Your task to perform on an android device: Open Maps and search for coffee Image 0: 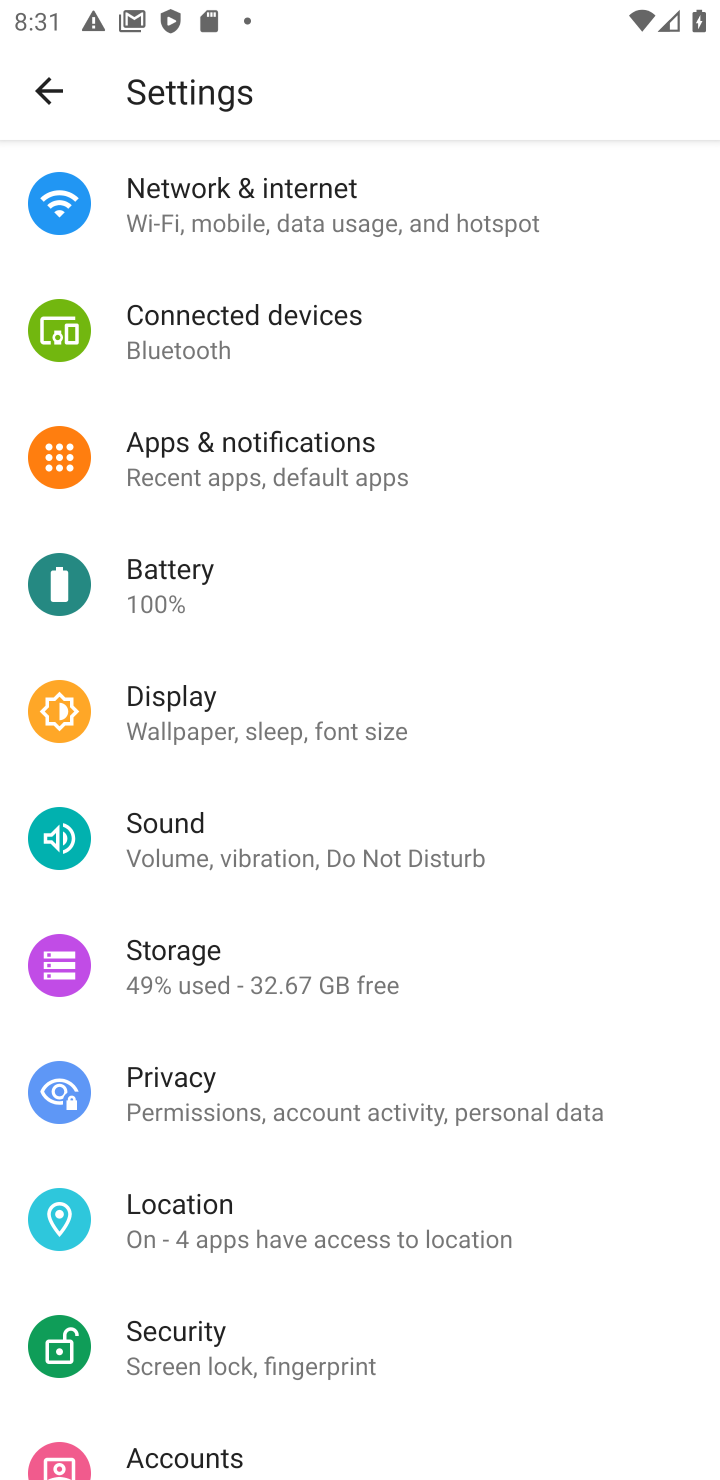
Step 0: press home button
Your task to perform on an android device: Open Maps and search for coffee Image 1: 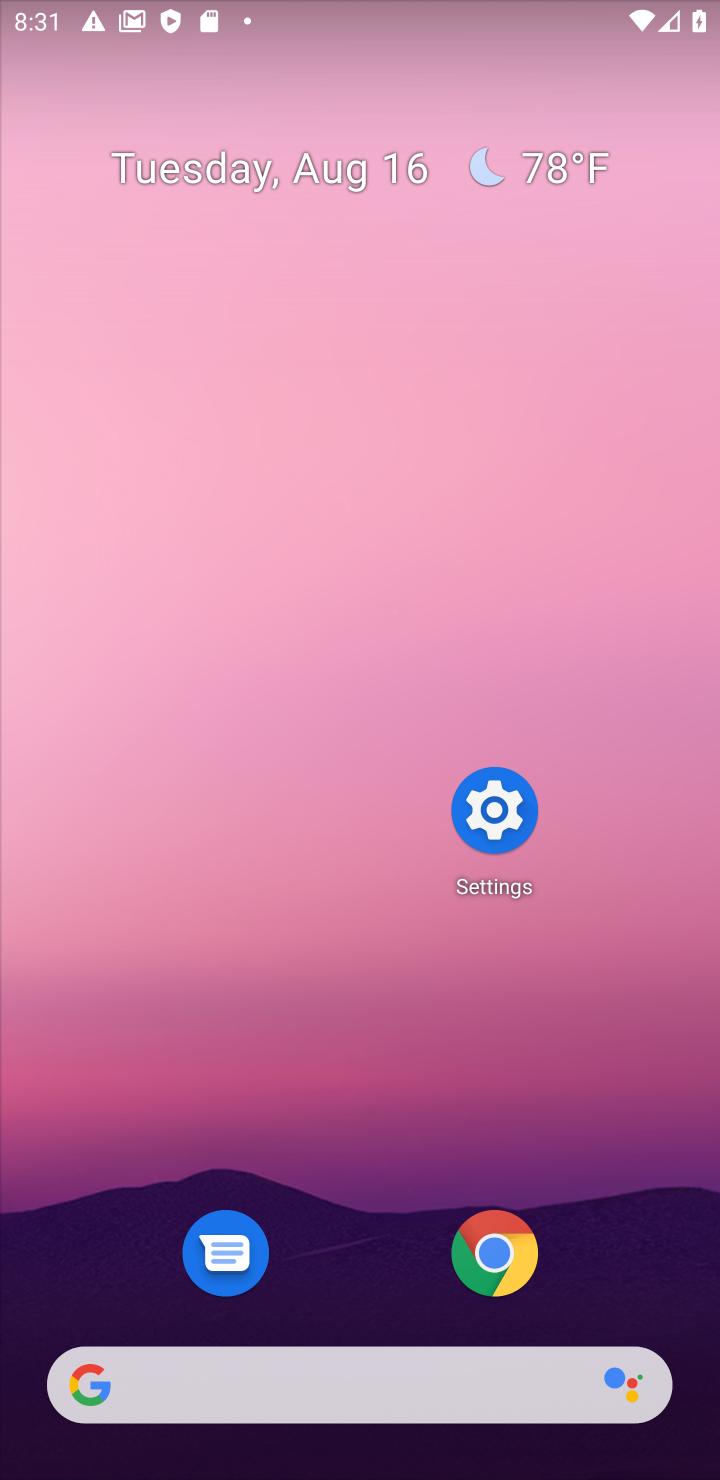
Step 1: drag from (334, 1368) to (473, 141)
Your task to perform on an android device: Open Maps and search for coffee Image 2: 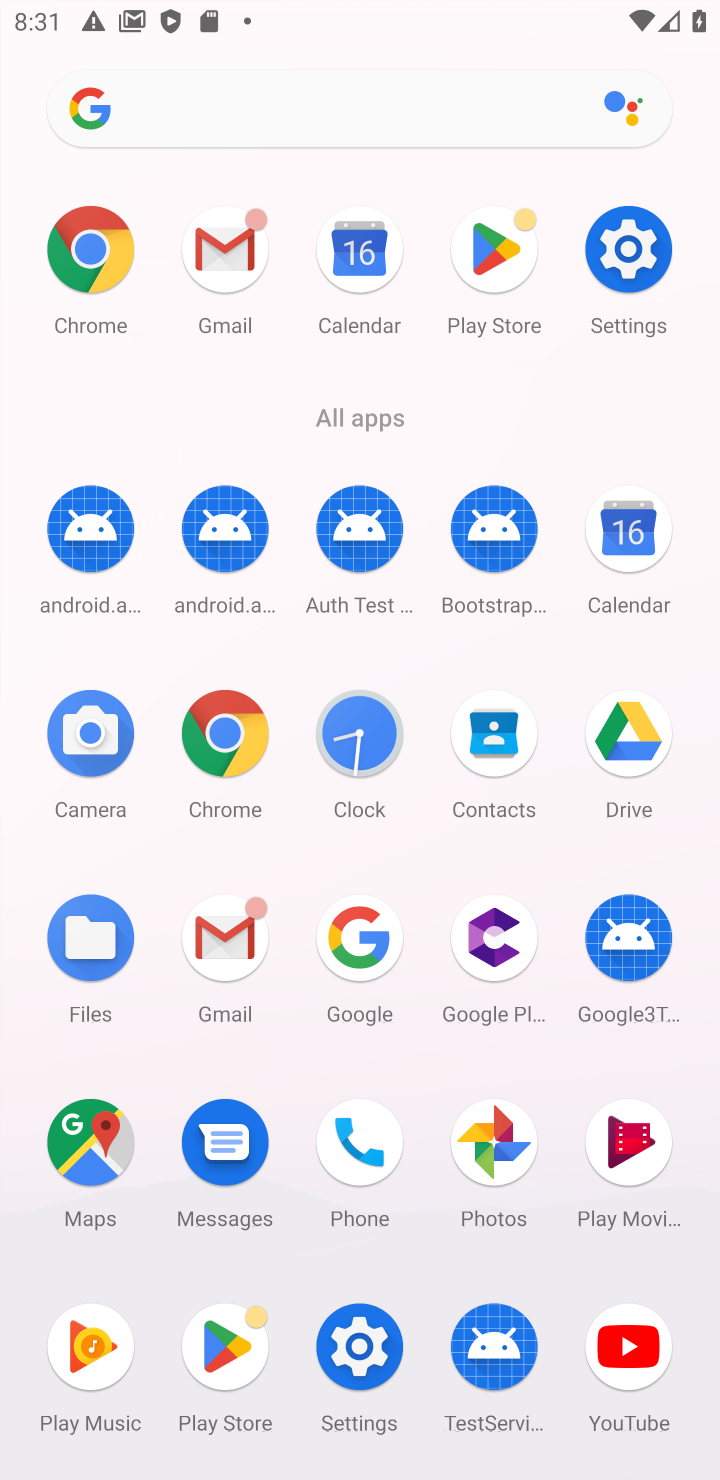
Step 2: drag from (86, 1152) to (259, 841)
Your task to perform on an android device: Open Maps and search for coffee Image 3: 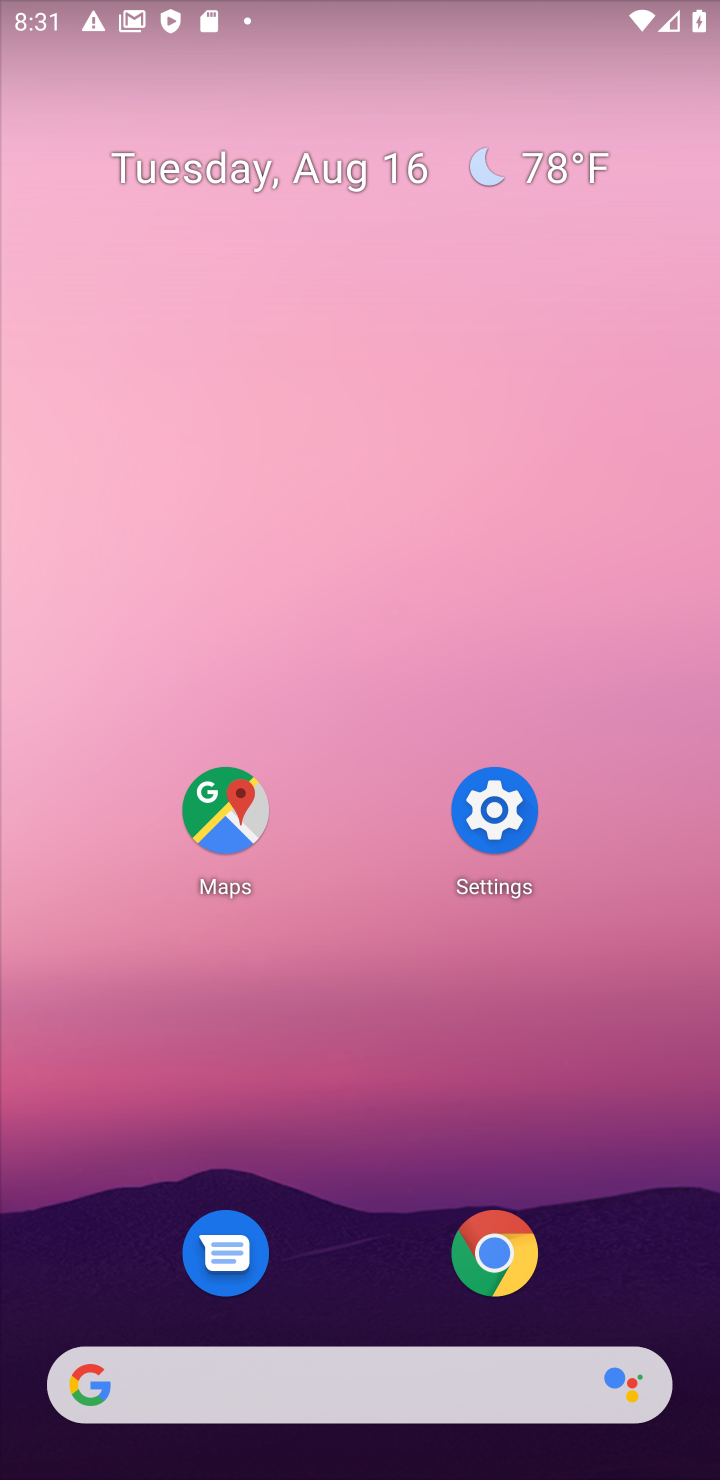
Step 3: click (229, 828)
Your task to perform on an android device: Open Maps and search for coffee Image 4: 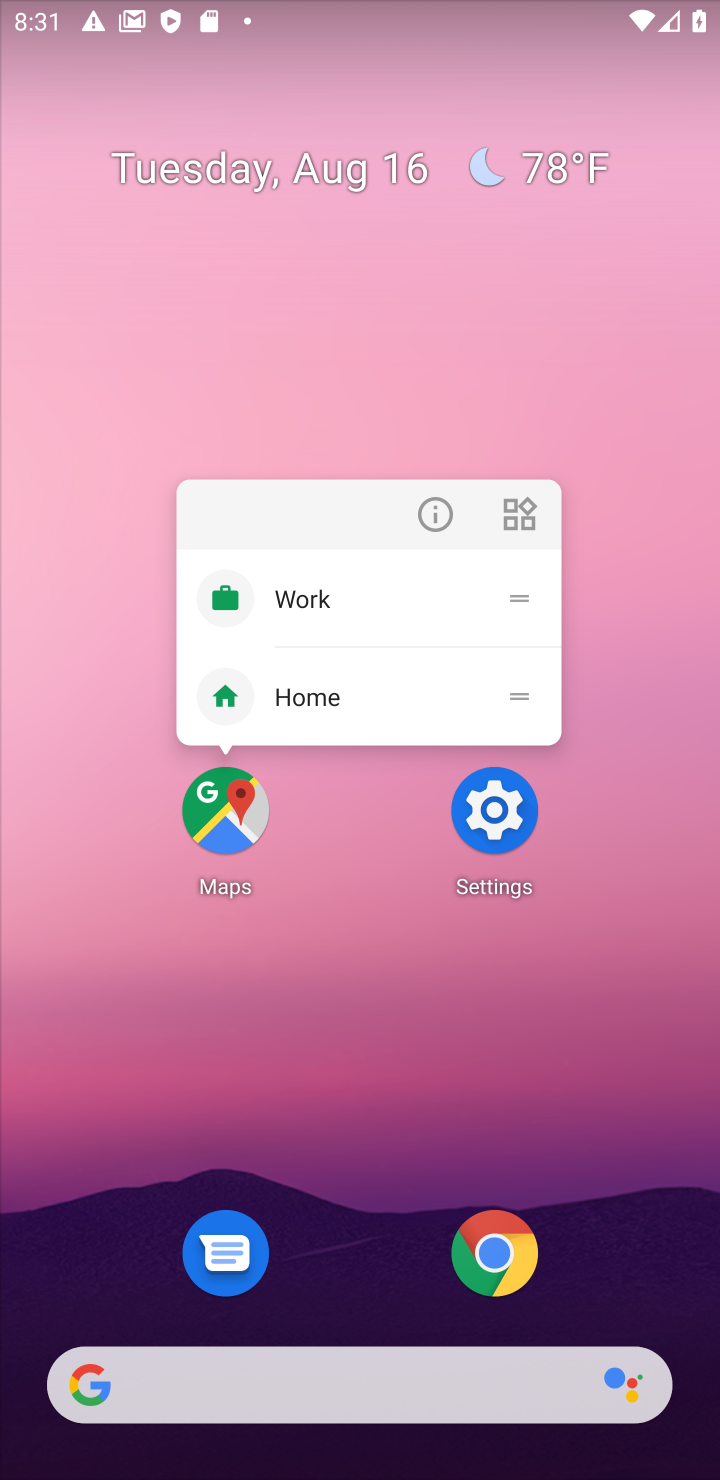
Step 4: click (229, 831)
Your task to perform on an android device: Open Maps and search for coffee Image 5: 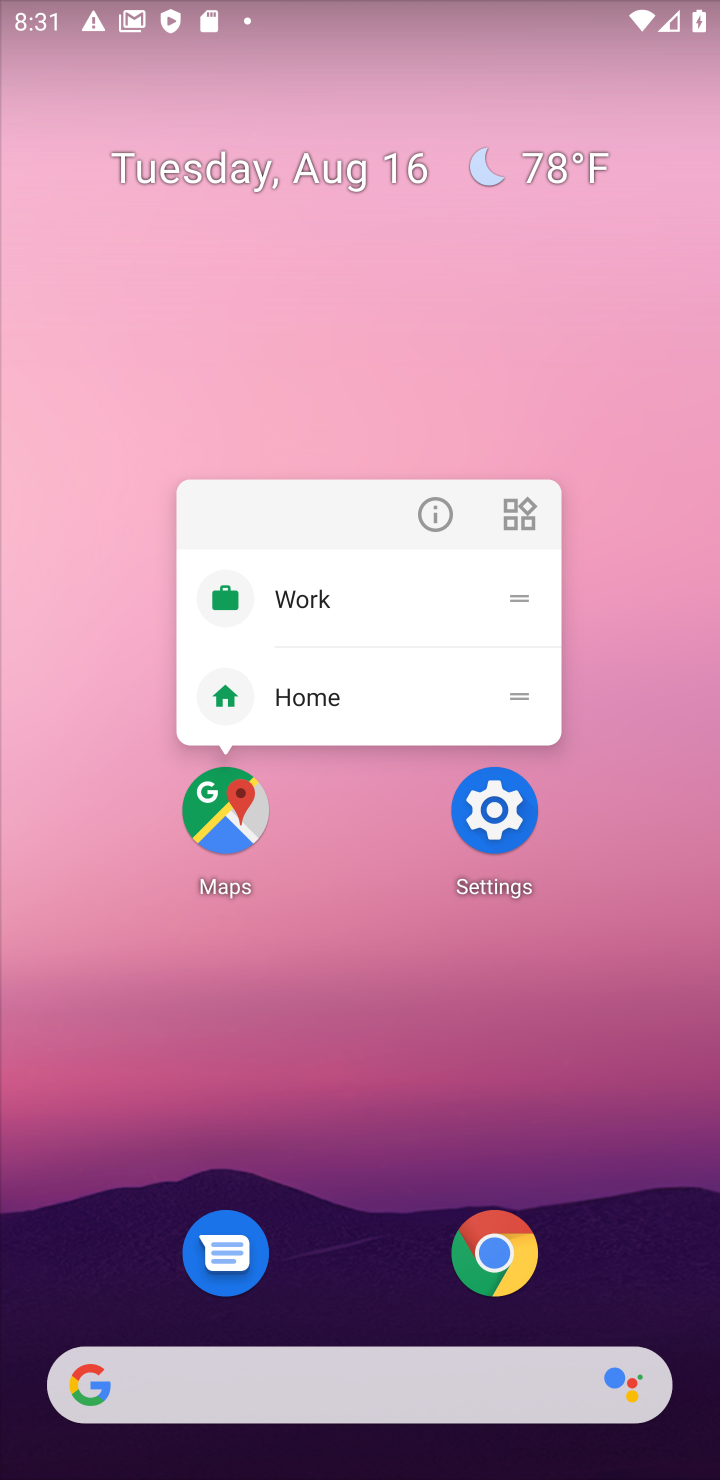
Step 5: click (227, 837)
Your task to perform on an android device: Open Maps and search for coffee Image 6: 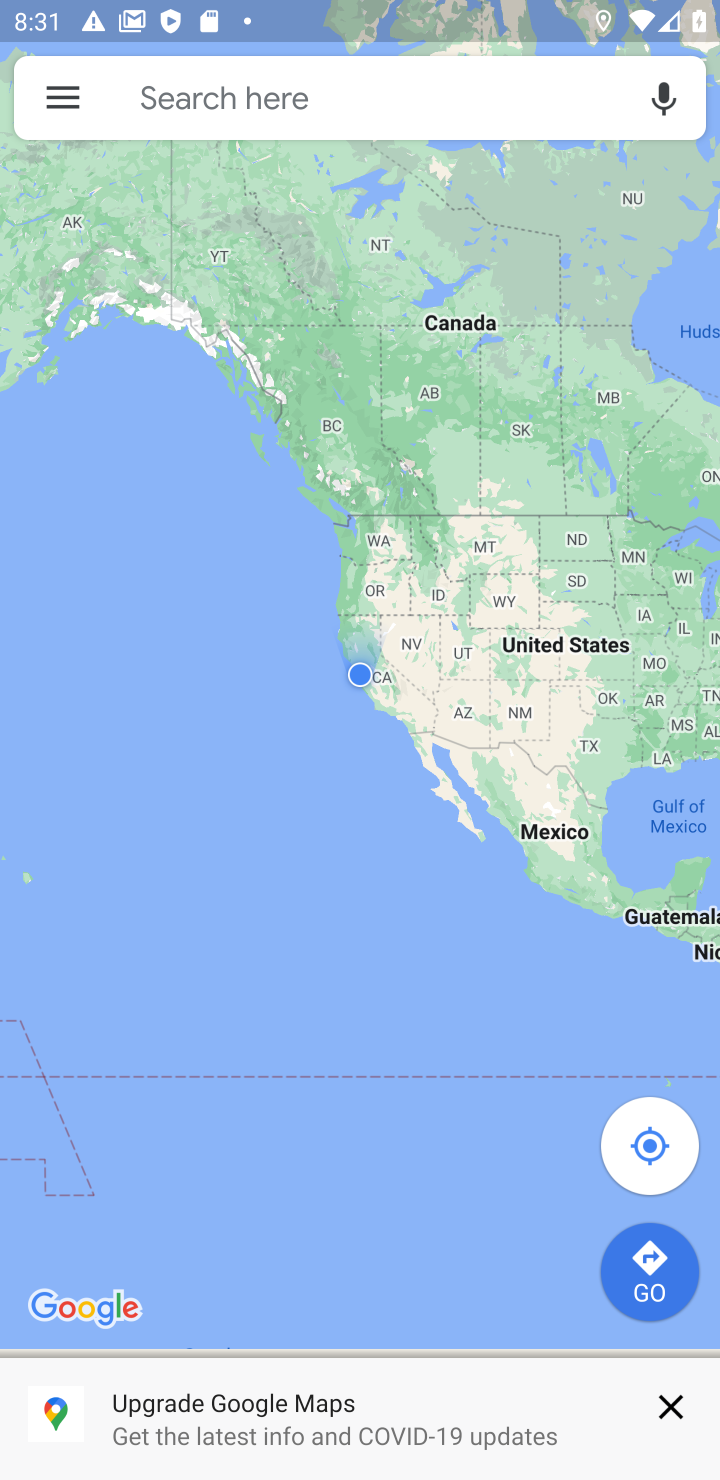
Step 6: click (191, 101)
Your task to perform on an android device: Open Maps and search for coffee Image 7: 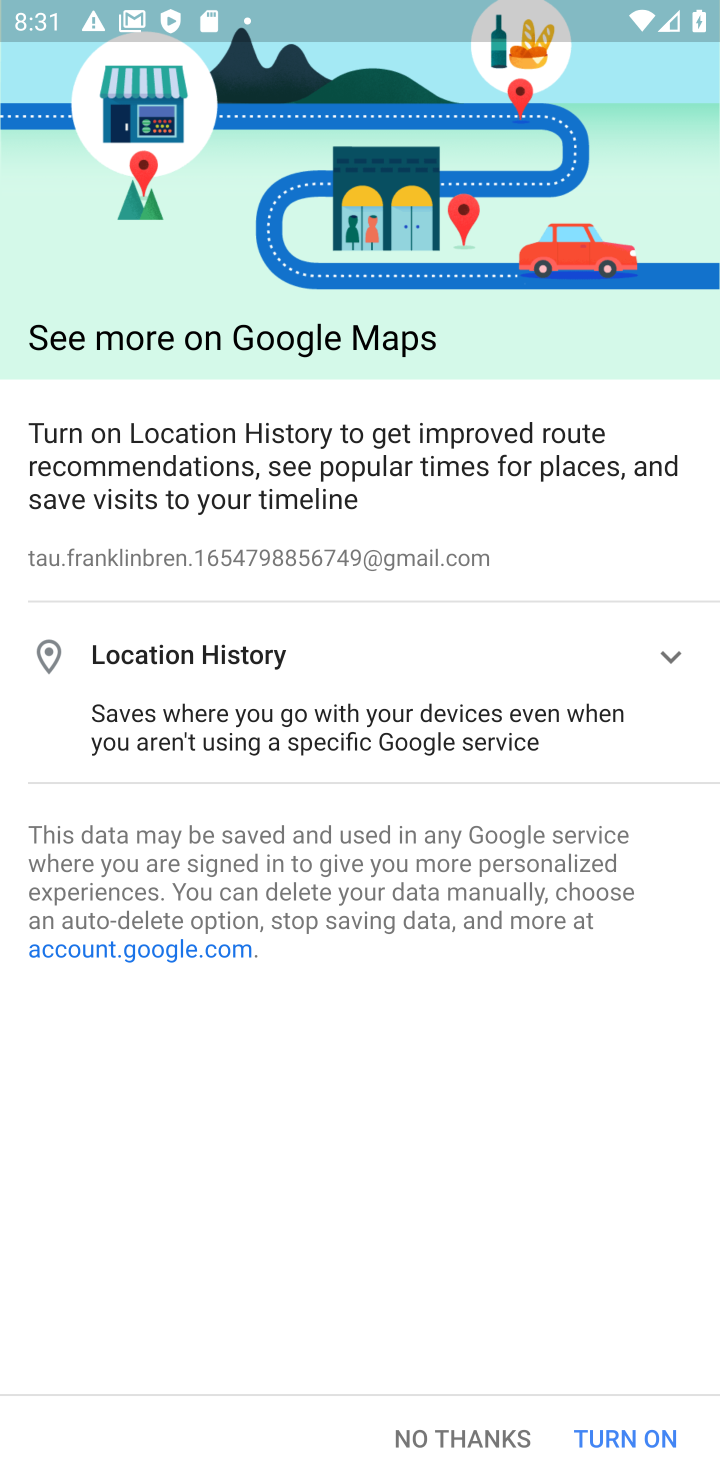
Step 7: click (434, 1428)
Your task to perform on an android device: Open Maps and search for coffee Image 8: 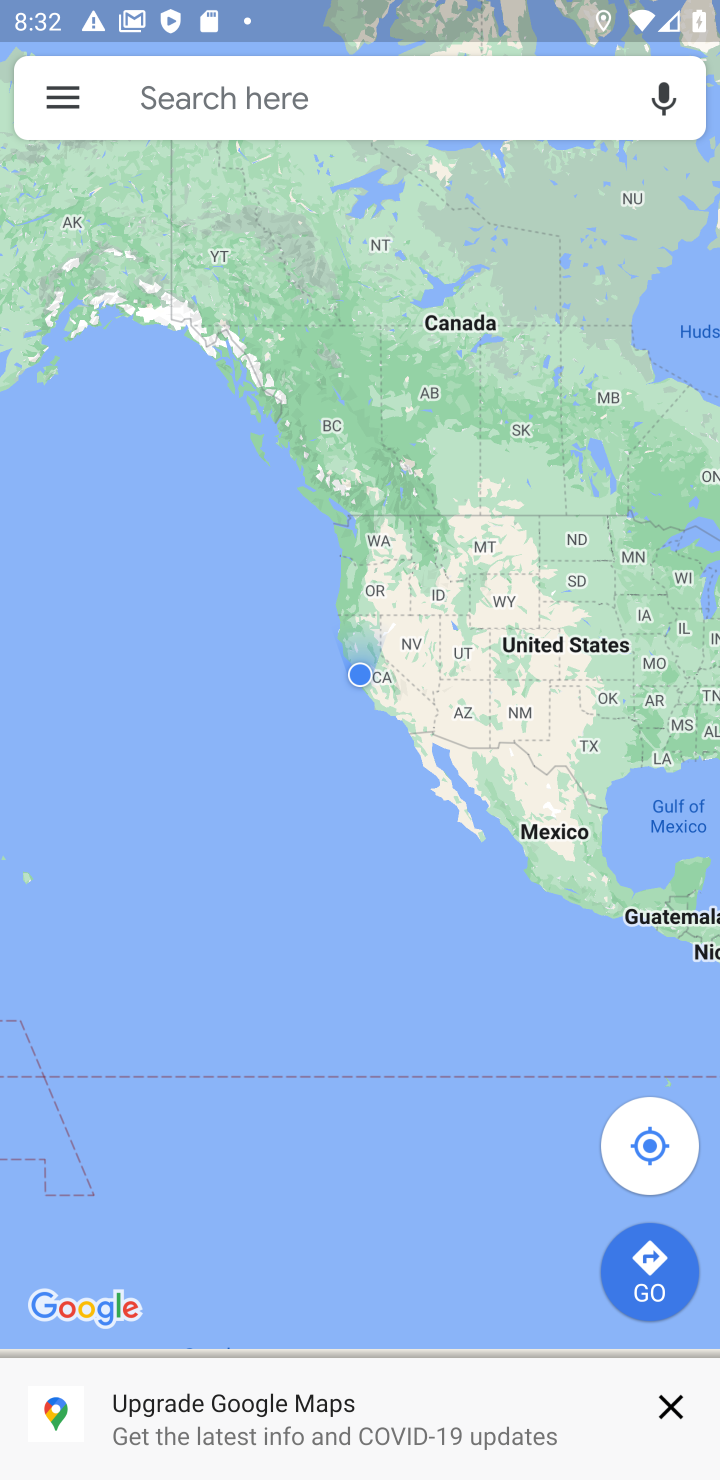
Step 8: click (248, 94)
Your task to perform on an android device: Open Maps and search for coffee Image 9: 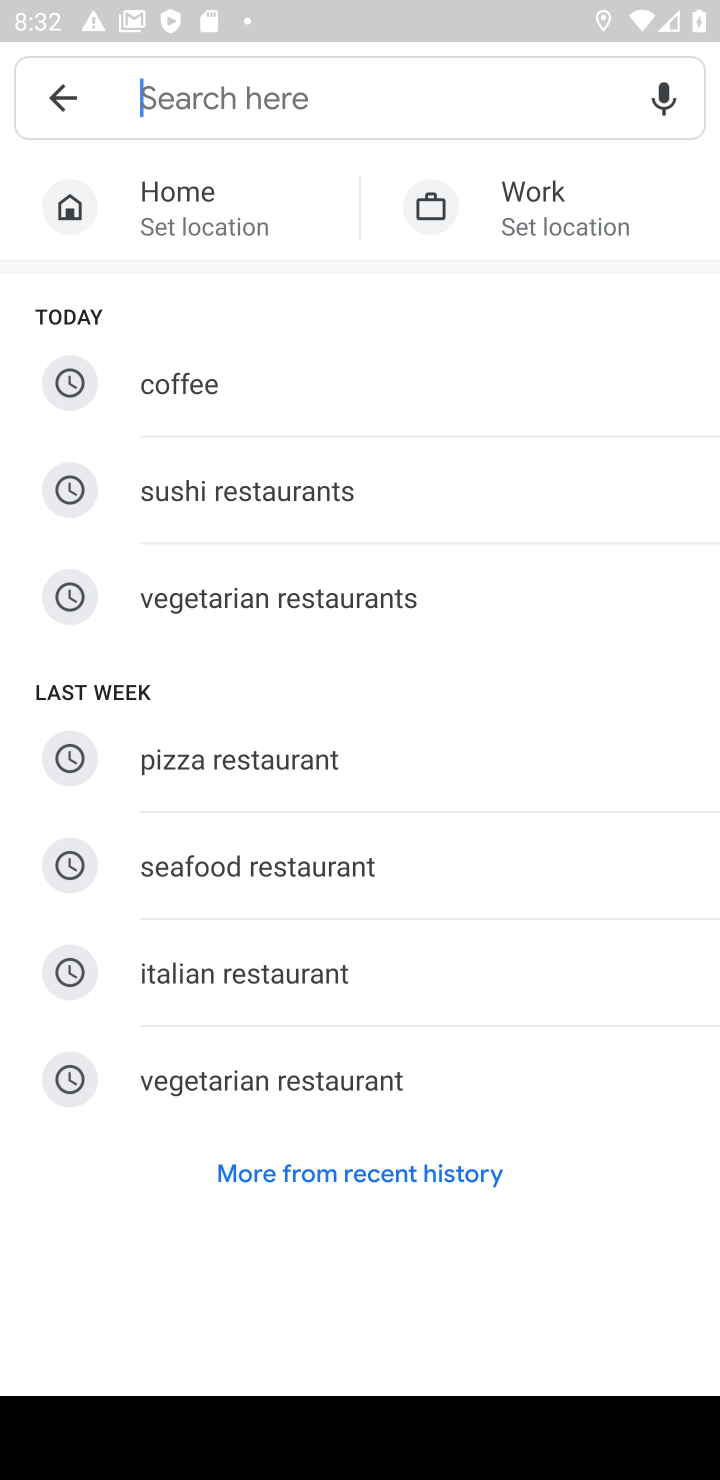
Step 9: click (172, 386)
Your task to perform on an android device: Open Maps and search for coffee Image 10: 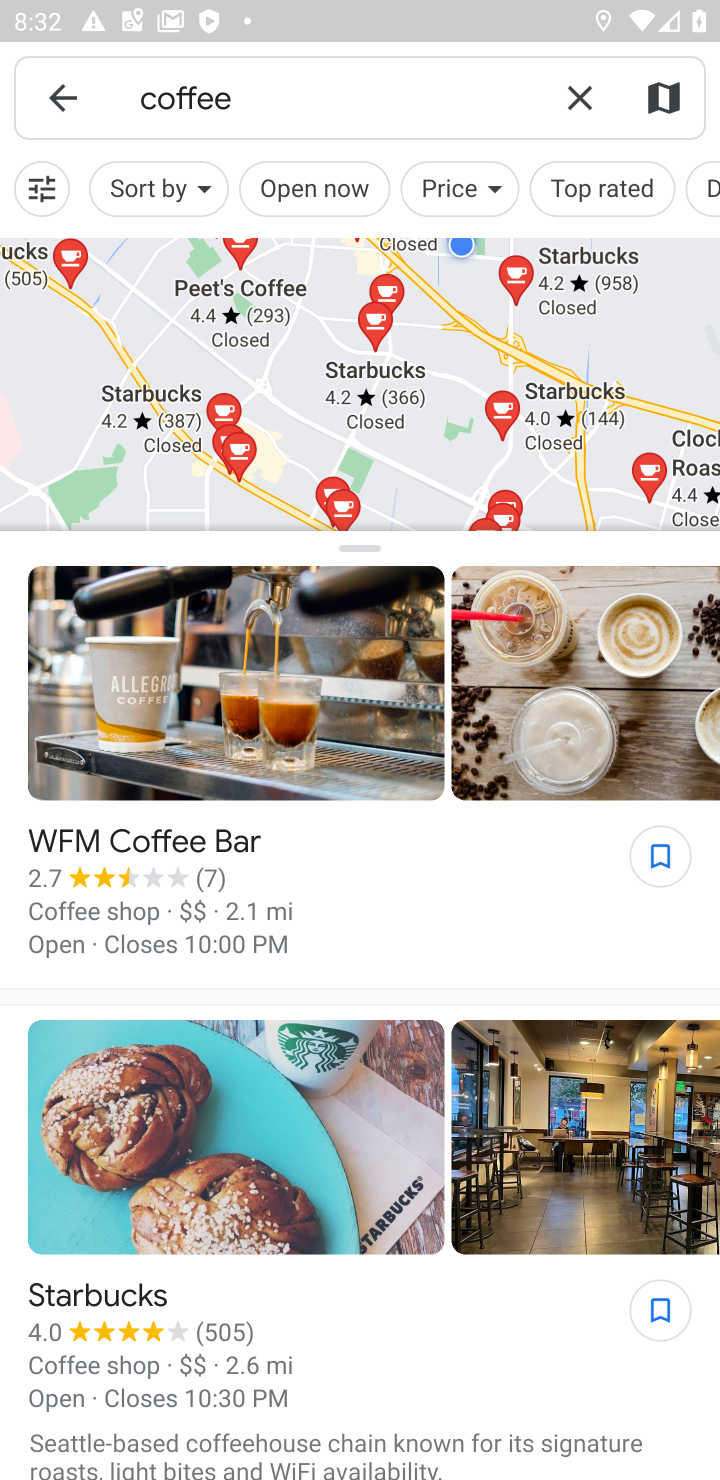
Step 10: task complete